Your task to perform on an android device: visit the assistant section in the google photos Image 0: 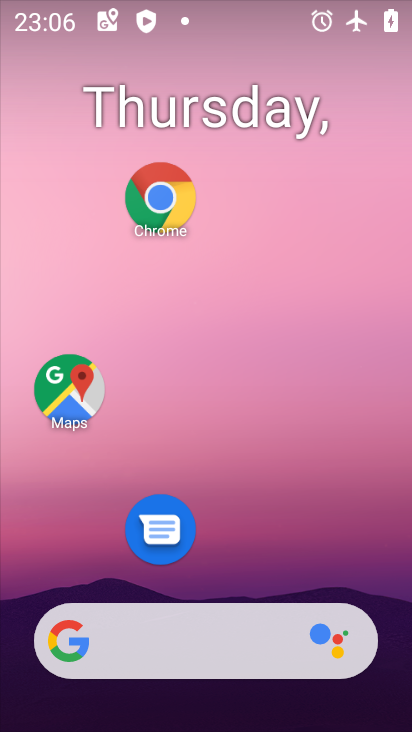
Step 0: drag from (320, 540) to (273, 69)
Your task to perform on an android device: visit the assistant section in the google photos Image 1: 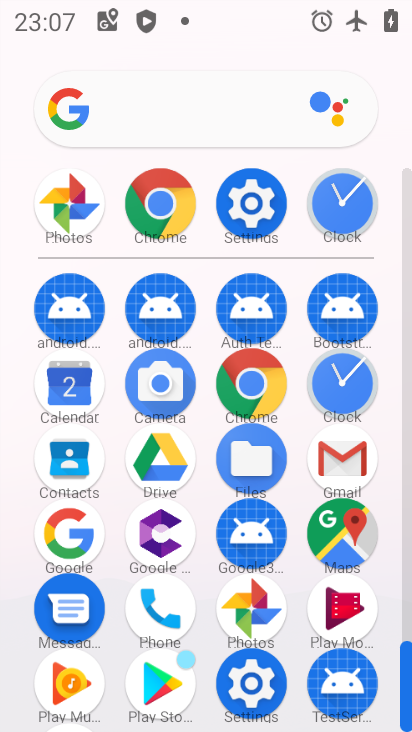
Step 1: click (61, 191)
Your task to perform on an android device: visit the assistant section in the google photos Image 2: 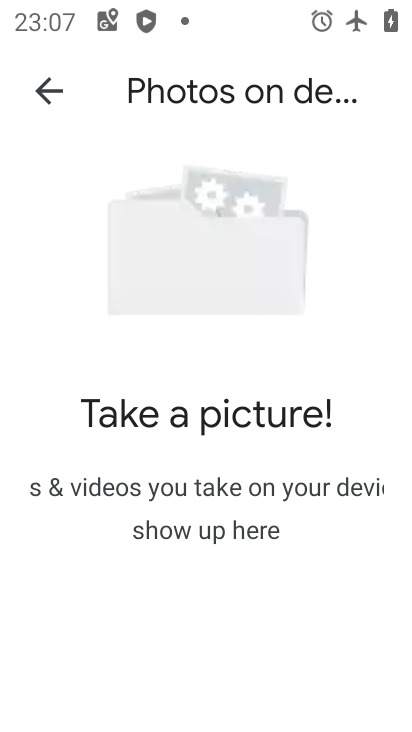
Step 2: click (45, 92)
Your task to perform on an android device: visit the assistant section in the google photos Image 3: 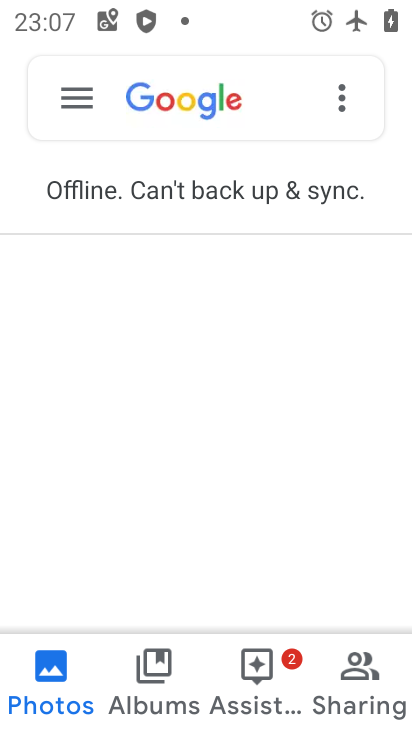
Step 3: click (246, 664)
Your task to perform on an android device: visit the assistant section in the google photos Image 4: 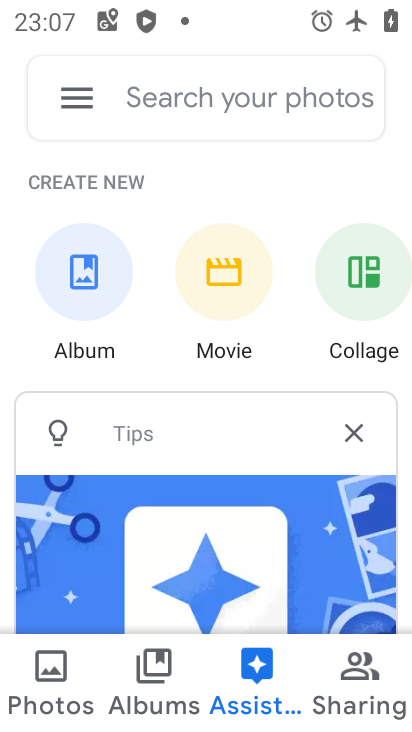
Step 4: task complete